Your task to perform on an android device: Open network settings Image 0: 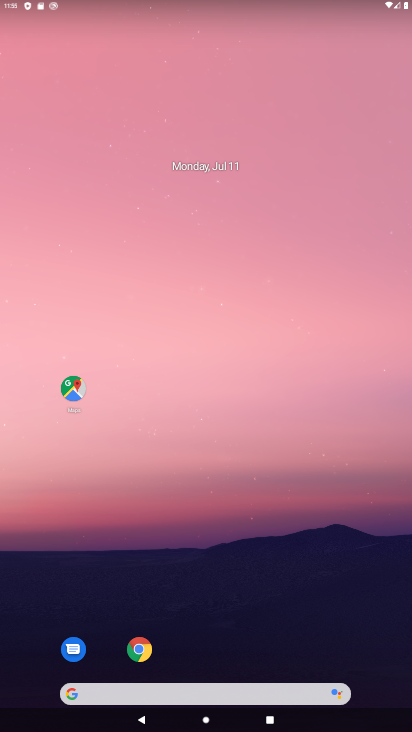
Step 0: drag from (220, 634) to (213, 216)
Your task to perform on an android device: Open network settings Image 1: 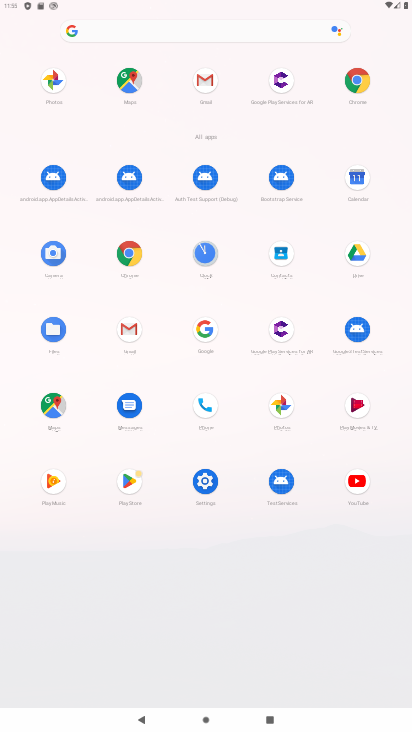
Step 1: click (198, 490)
Your task to perform on an android device: Open network settings Image 2: 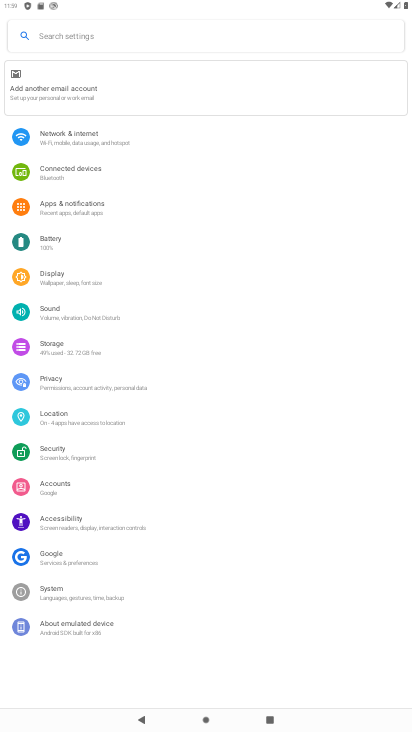
Step 2: click (295, 160)
Your task to perform on an android device: Open network settings Image 3: 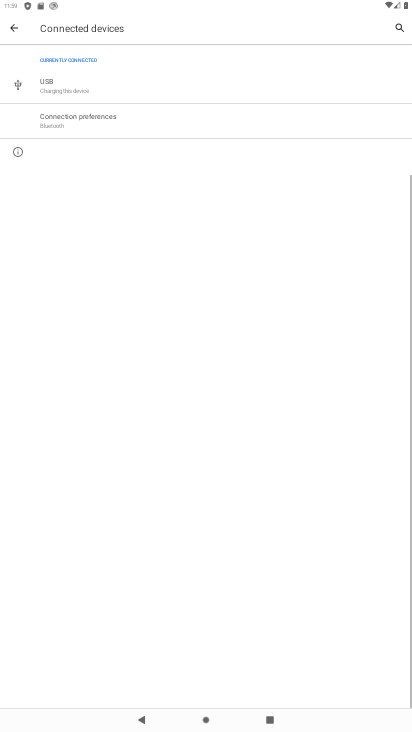
Step 3: task complete